Your task to perform on an android device: Go to battery settings Image 0: 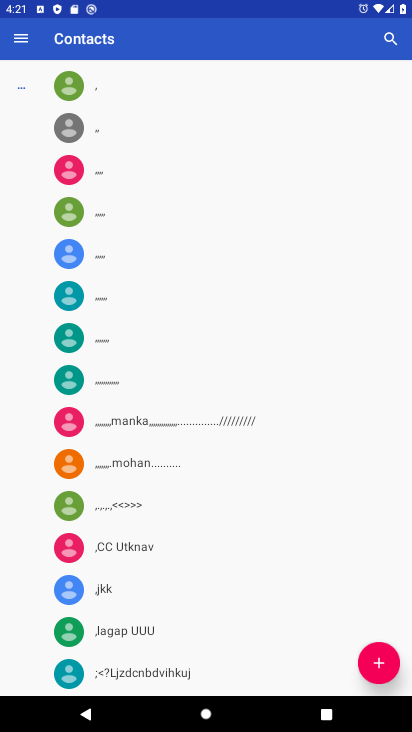
Step 0: press home button
Your task to perform on an android device: Go to battery settings Image 1: 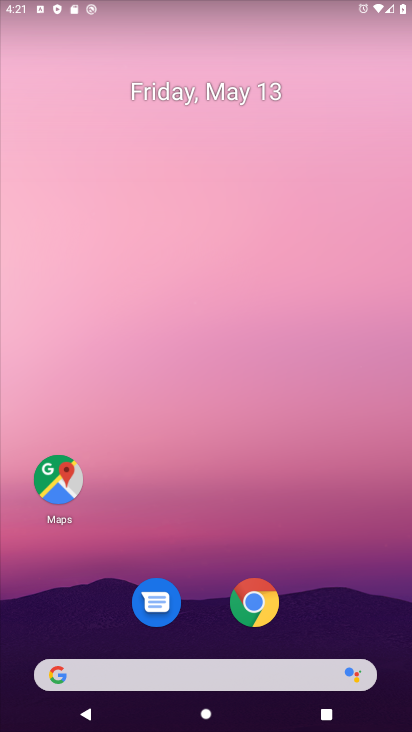
Step 1: drag from (200, 660) to (239, 292)
Your task to perform on an android device: Go to battery settings Image 2: 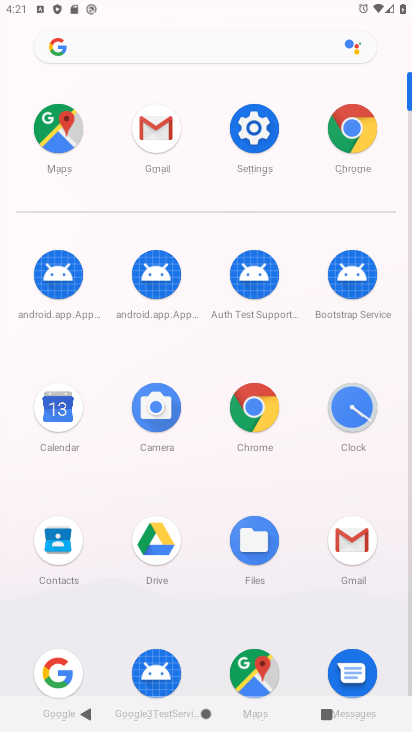
Step 2: click (268, 121)
Your task to perform on an android device: Go to battery settings Image 3: 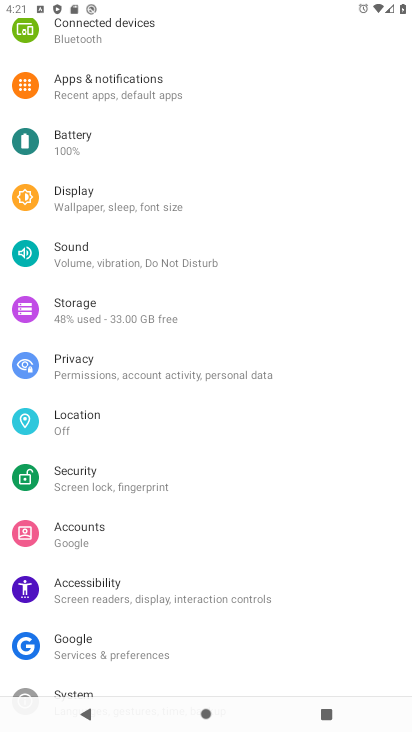
Step 3: click (89, 142)
Your task to perform on an android device: Go to battery settings Image 4: 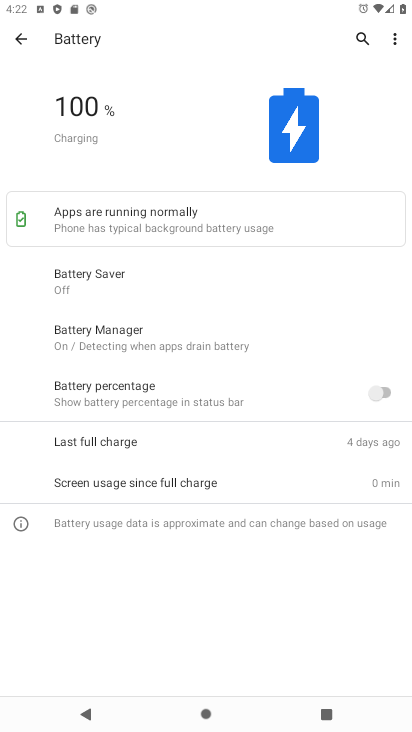
Step 4: task complete